Your task to perform on an android device: Open sound settings Image 0: 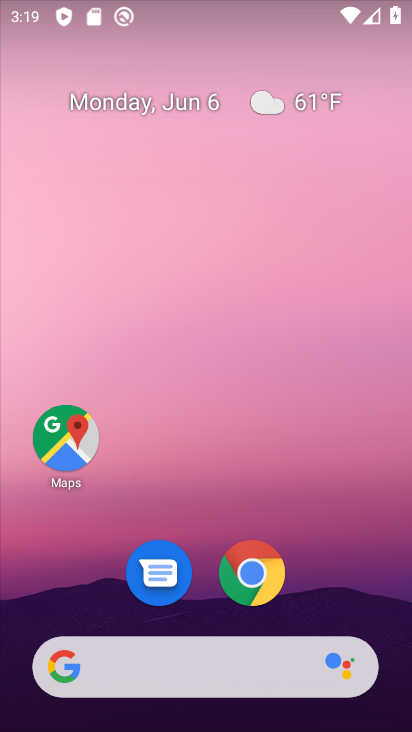
Step 0: drag from (219, 634) to (215, 247)
Your task to perform on an android device: Open sound settings Image 1: 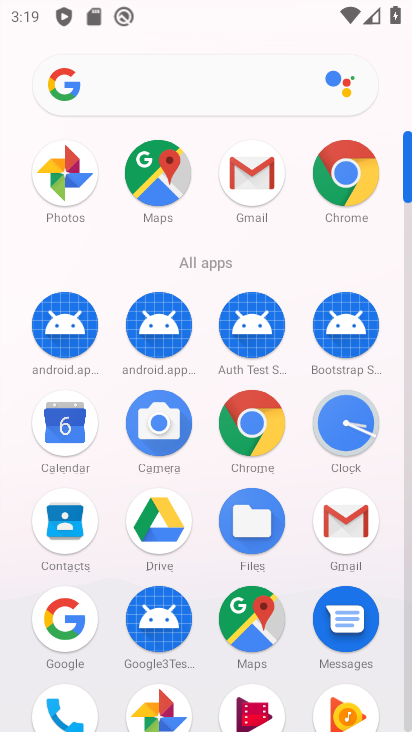
Step 1: drag from (105, 682) to (103, 379)
Your task to perform on an android device: Open sound settings Image 2: 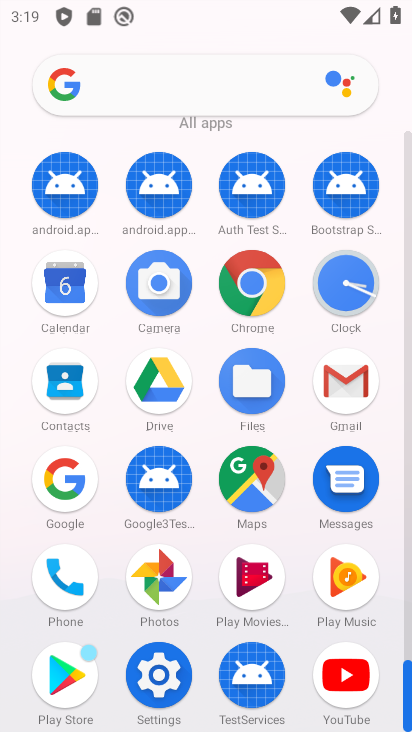
Step 2: click (169, 680)
Your task to perform on an android device: Open sound settings Image 3: 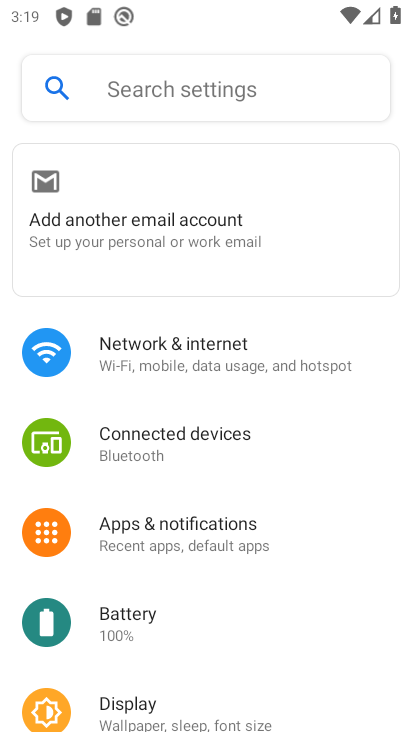
Step 3: drag from (208, 652) to (214, 336)
Your task to perform on an android device: Open sound settings Image 4: 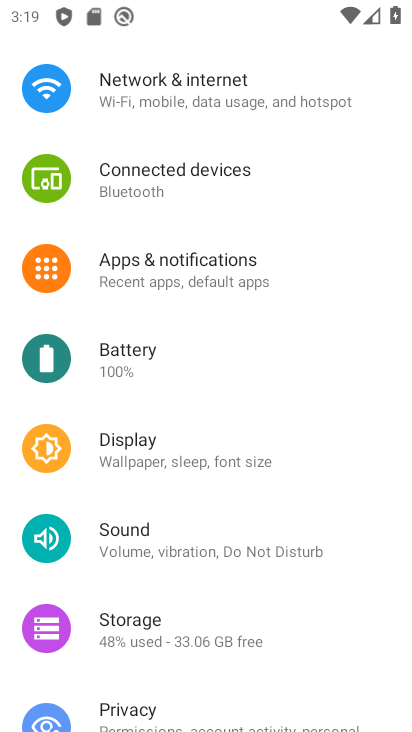
Step 4: click (145, 542)
Your task to perform on an android device: Open sound settings Image 5: 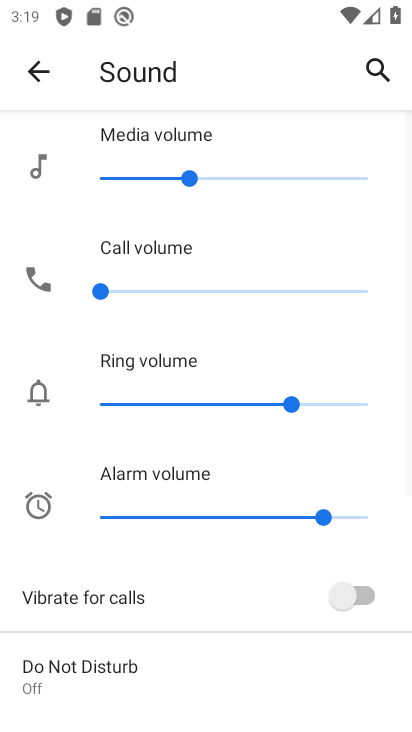
Step 5: task complete